Your task to perform on an android device: check android version Image 0: 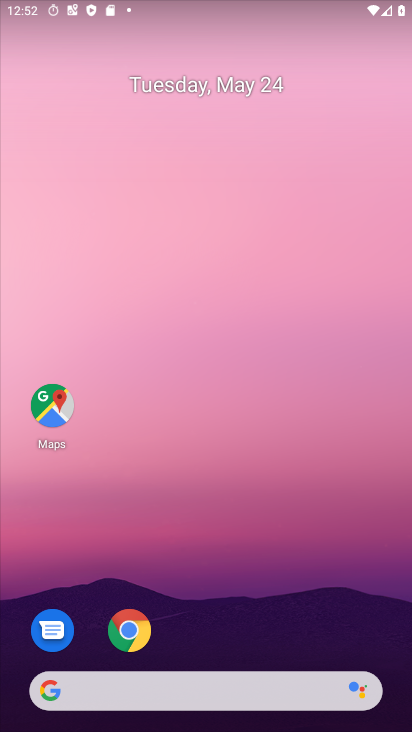
Step 0: drag from (264, 651) to (269, 14)
Your task to perform on an android device: check android version Image 1: 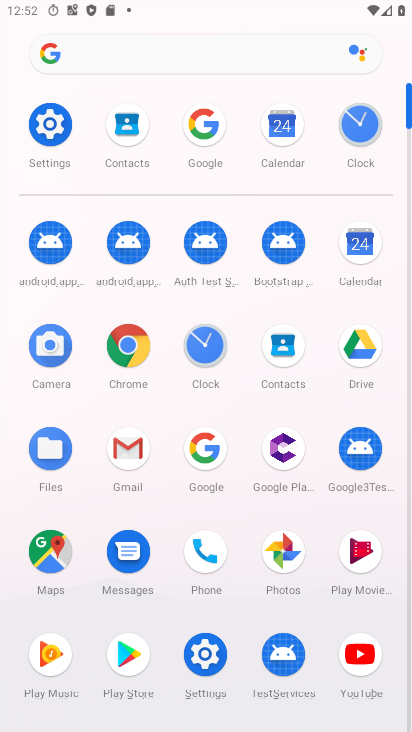
Step 1: click (51, 129)
Your task to perform on an android device: check android version Image 2: 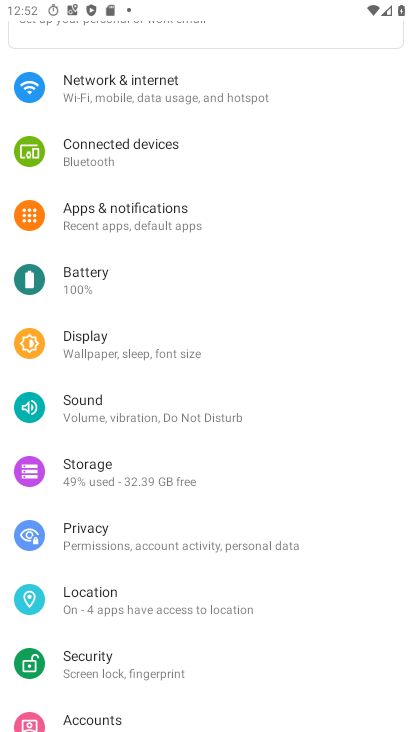
Step 2: drag from (323, 655) to (271, 90)
Your task to perform on an android device: check android version Image 3: 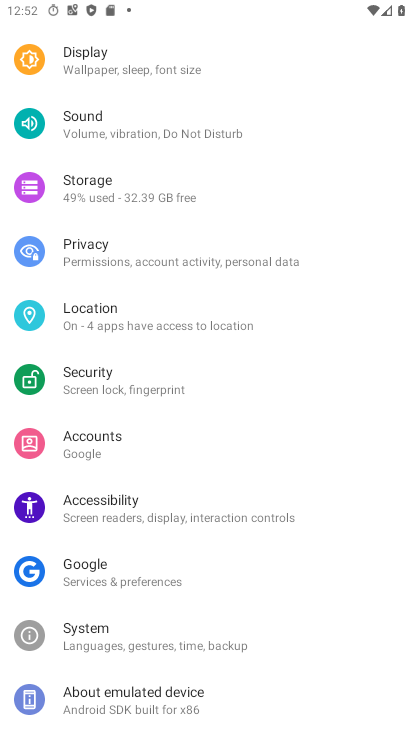
Step 3: drag from (181, 598) to (189, 402)
Your task to perform on an android device: check android version Image 4: 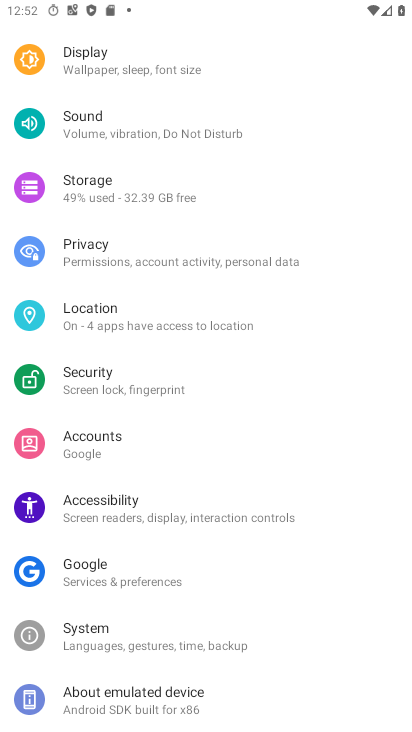
Step 4: click (123, 701)
Your task to perform on an android device: check android version Image 5: 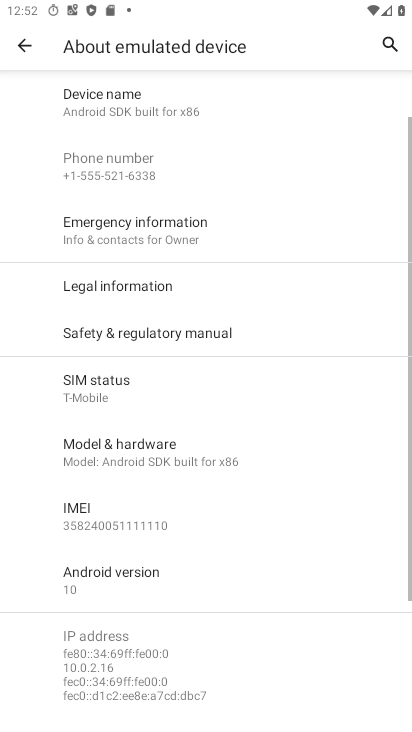
Step 5: click (124, 577)
Your task to perform on an android device: check android version Image 6: 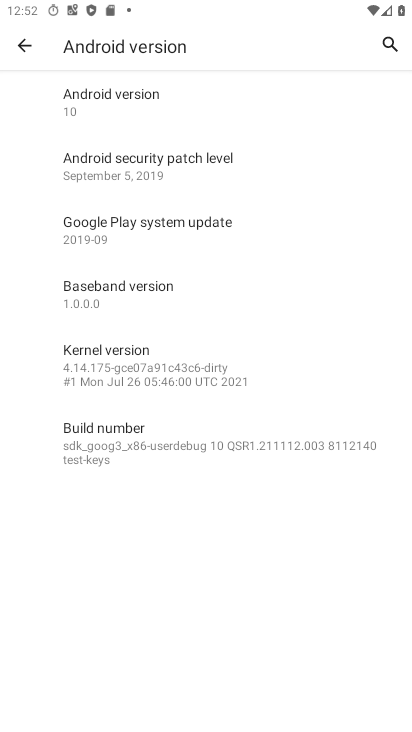
Step 6: task complete